Your task to perform on an android device: What is the news today? Image 0: 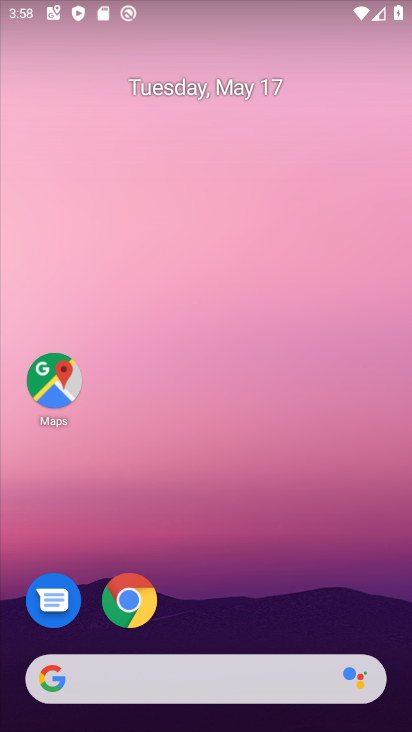
Step 0: click (224, 678)
Your task to perform on an android device: What is the news today? Image 1: 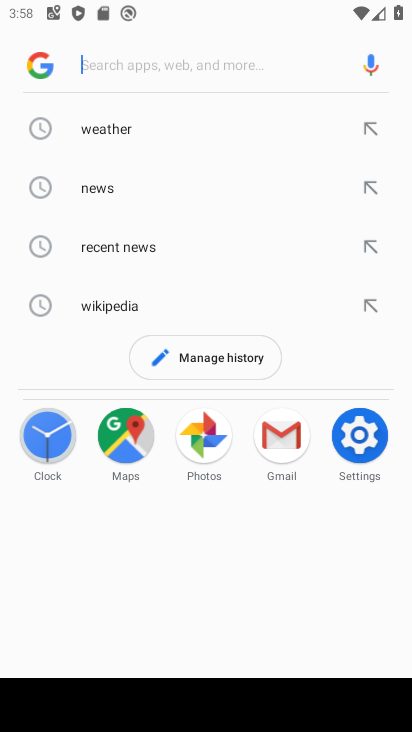
Step 1: type "news today ?"
Your task to perform on an android device: What is the news today? Image 2: 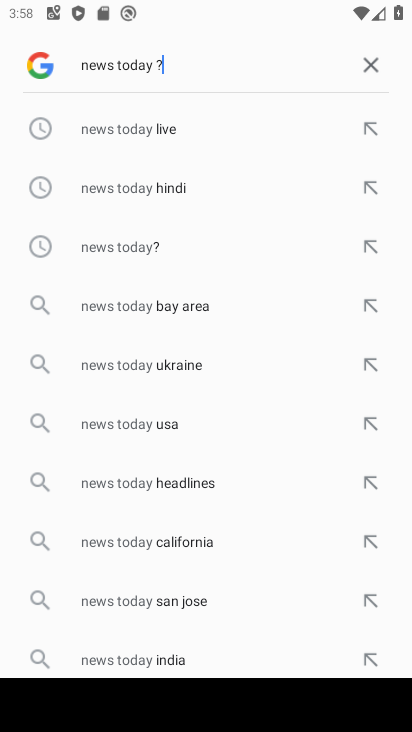
Step 2: click (125, 255)
Your task to perform on an android device: What is the news today? Image 3: 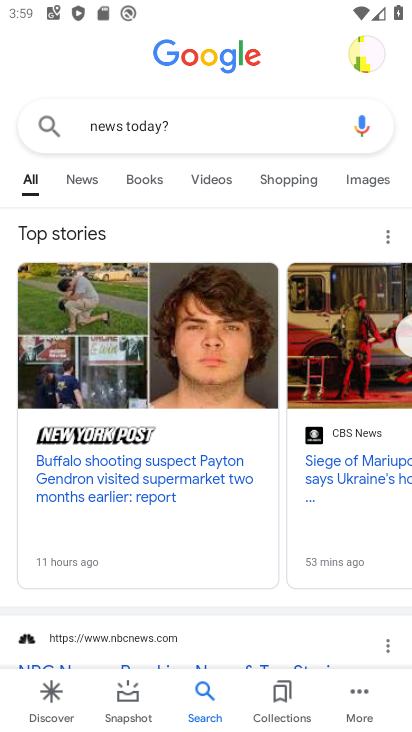
Step 3: task complete